Your task to perform on an android device: What's the weather going to be this weekend? Image 0: 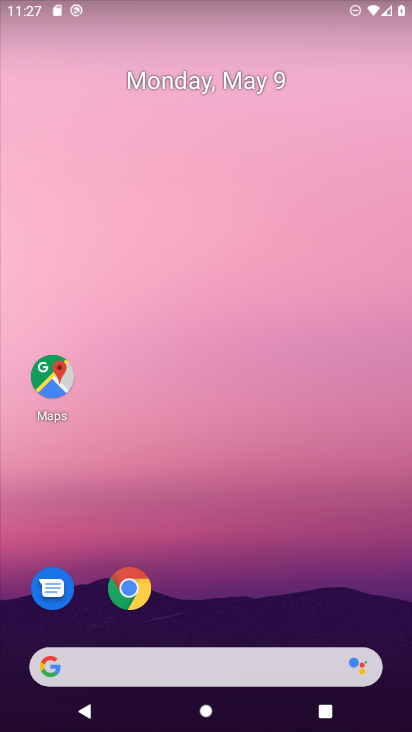
Step 0: click (247, 65)
Your task to perform on an android device: What's the weather going to be this weekend? Image 1: 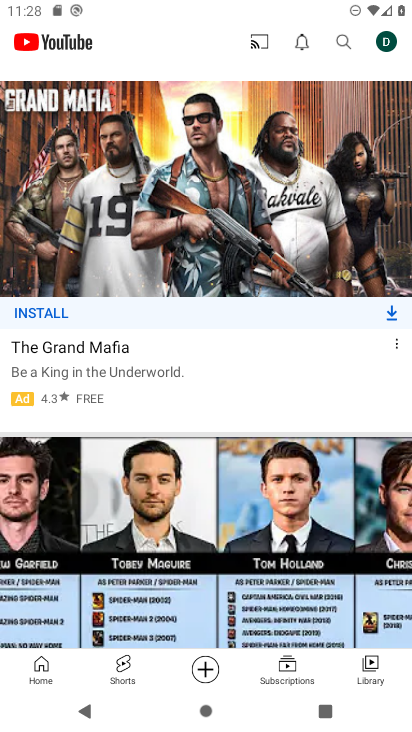
Step 1: press back button
Your task to perform on an android device: What's the weather going to be this weekend? Image 2: 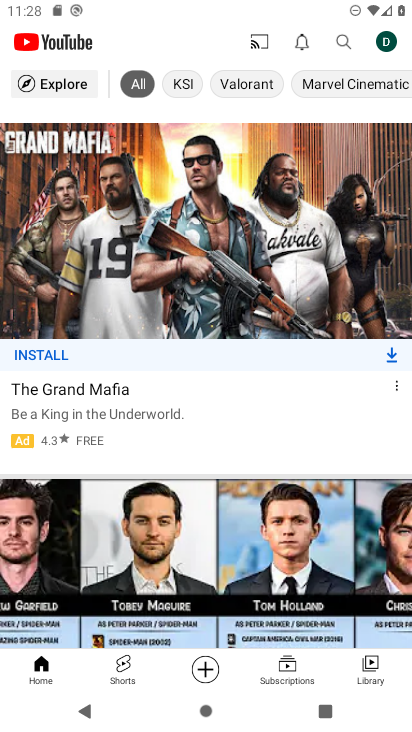
Step 2: press back button
Your task to perform on an android device: What's the weather going to be this weekend? Image 3: 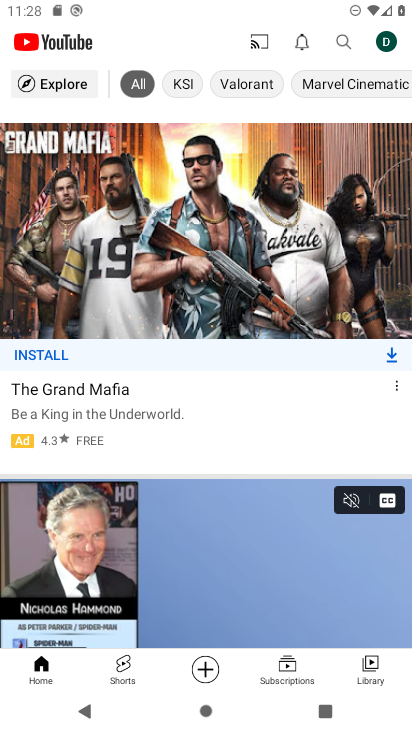
Step 3: press back button
Your task to perform on an android device: What's the weather going to be this weekend? Image 4: 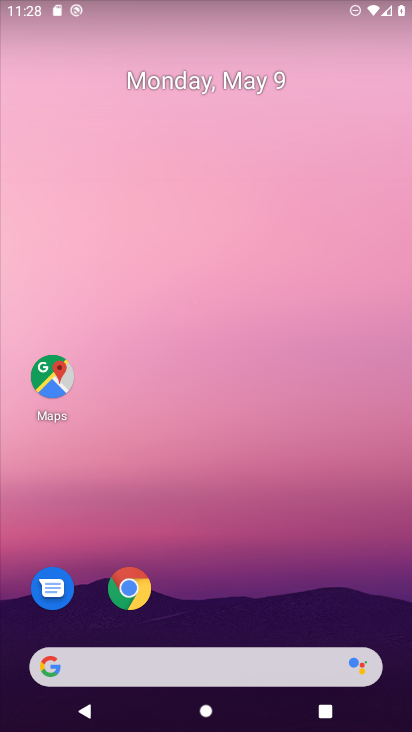
Step 4: drag from (295, 561) to (294, 44)
Your task to perform on an android device: What's the weather going to be this weekend? Image 5: 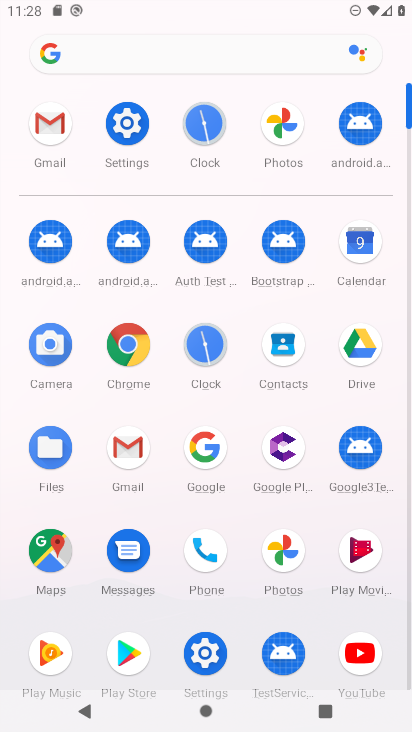
Step 5: click (269, 48)
Your task to perform on an android device: What's the weather going to be this weekend? Image 6: 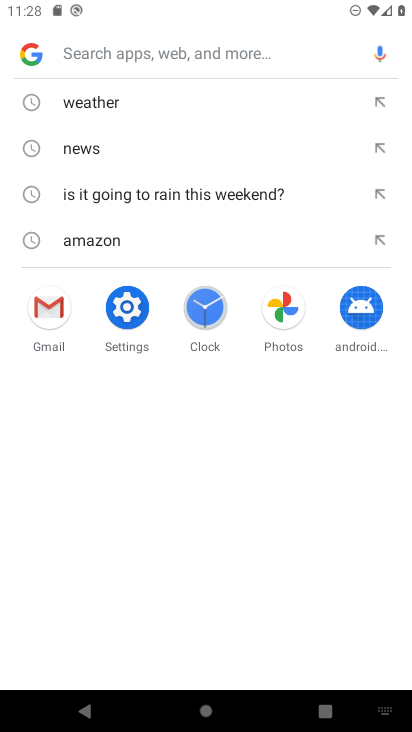
Step 6: click (145, 93)
Your task to perform on an android device: What's the weather going to be this weekend? Image 7: 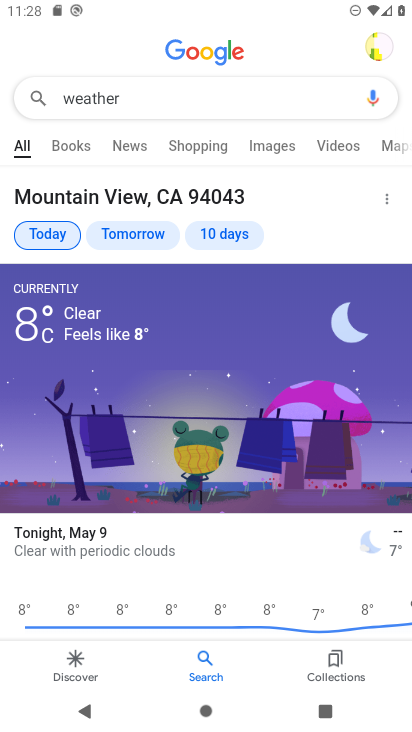
Step 7: click (231, 232)
Your task to perform on an android device: What's the weather going to be this weekend? Image 8: 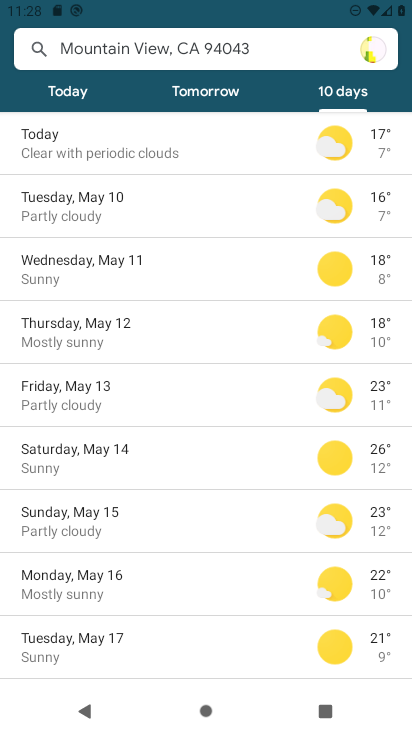
Step 8: task complete